Your task to perform on an android device: toggle airplane mode Image 0: 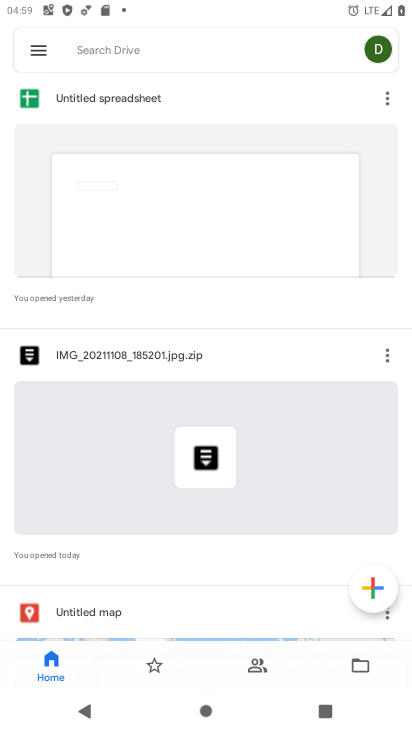
Step 0: press back button
Your task to perform on an android device: toggle airplane mode Image 1: 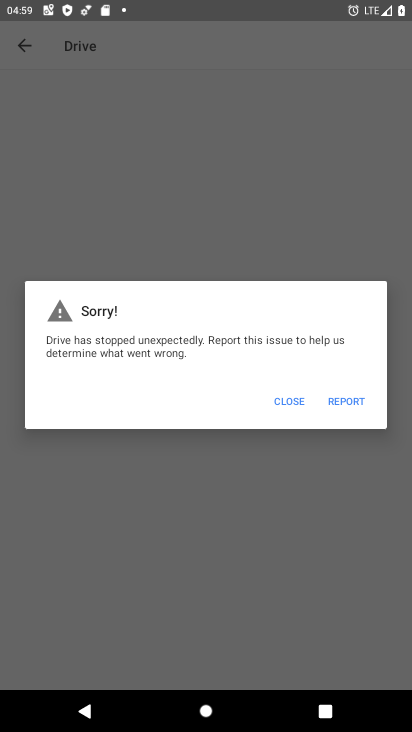
Step 1: press back button
Your task to perform on an android device: toggle airplane mode Image 2: 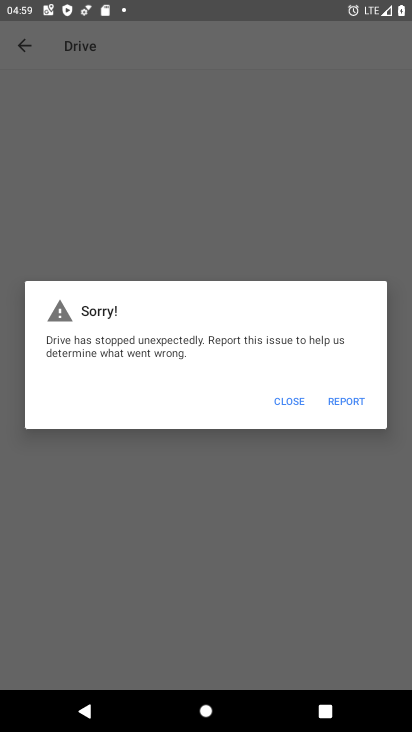
Step 2: press home button
Your task to perform on an android device: toggle airplane mode Image 3: 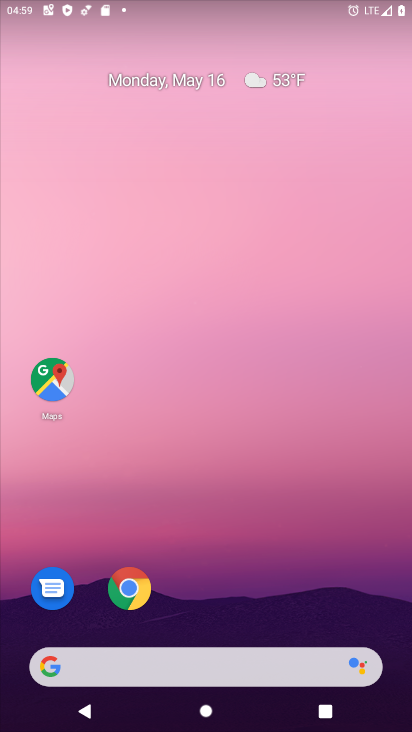
Step 3: drag from (222, 560) to (227, 43)
Your task to perform on an android device: toggle airplane mode Image 4: 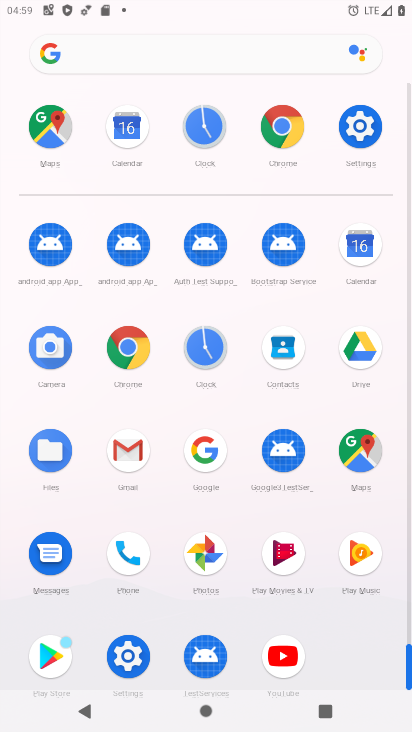
Step 4: click (125, 653)
Your task to perform on an android device: toggle airplane mode Image 5: 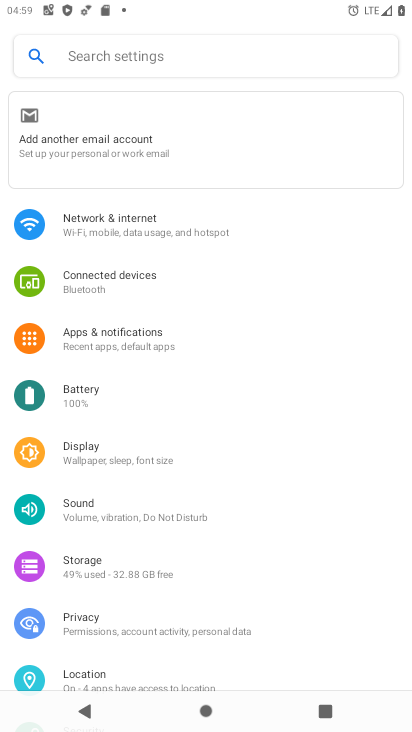
Step 5: click (159, 232)
Your task to perform on an android device: toggle airplane mode Image 6: 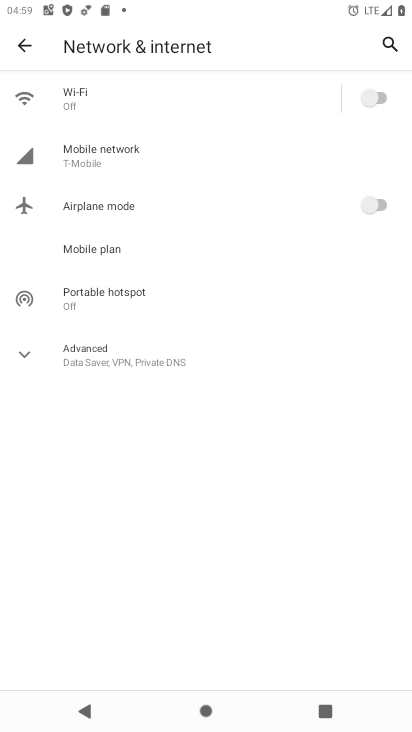
Step 6: click (372, 199)
Your task to perform on an android device: toggle airplane mode Image 7: 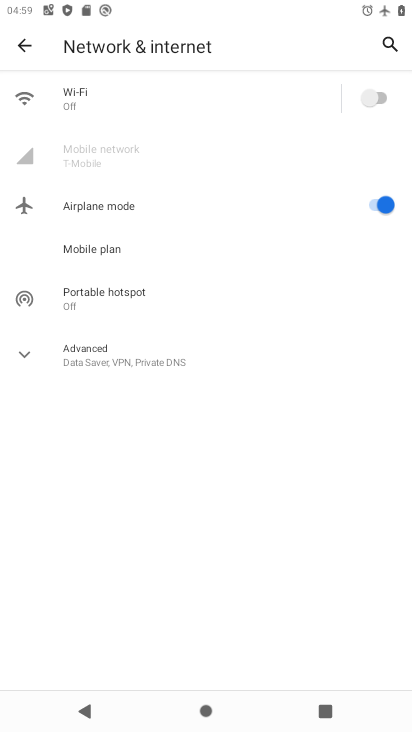
Step 7: task complete